Your task to perform on an android device: turn on wifi Image 0: 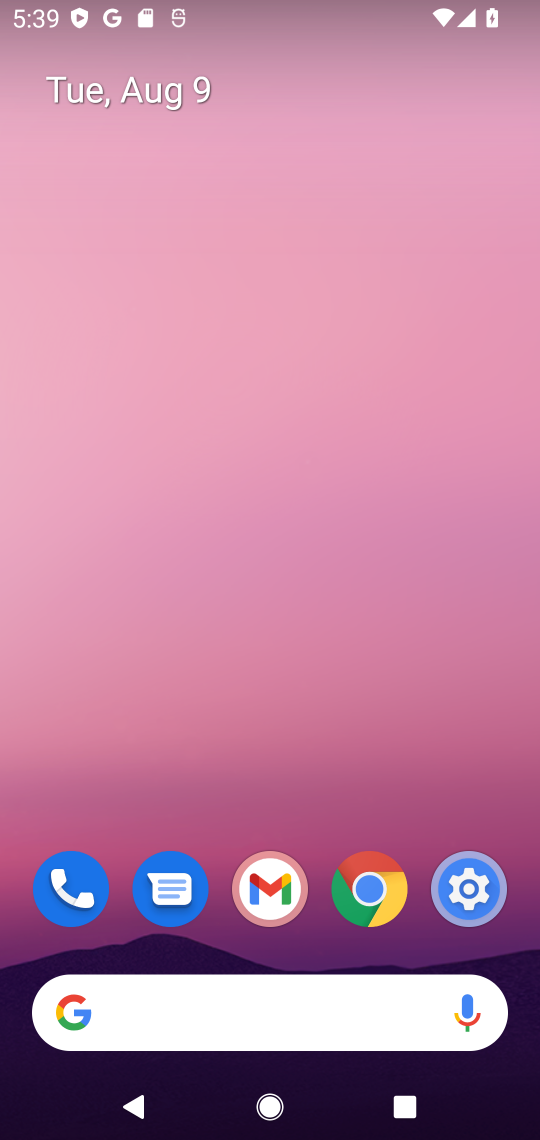
Step 0: click (468, 910)
Your task to perform on an android device: turn on wifi Image 1: 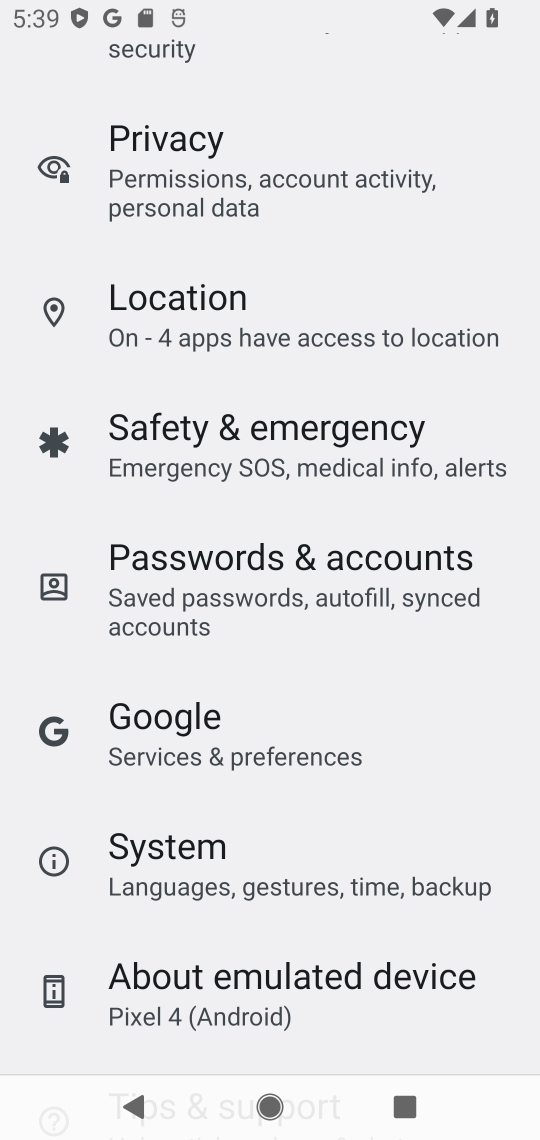
Step 1: drag from (353, 219) to (328, 1127)
Your task to perform on an android device: turn on wifi Image 2: 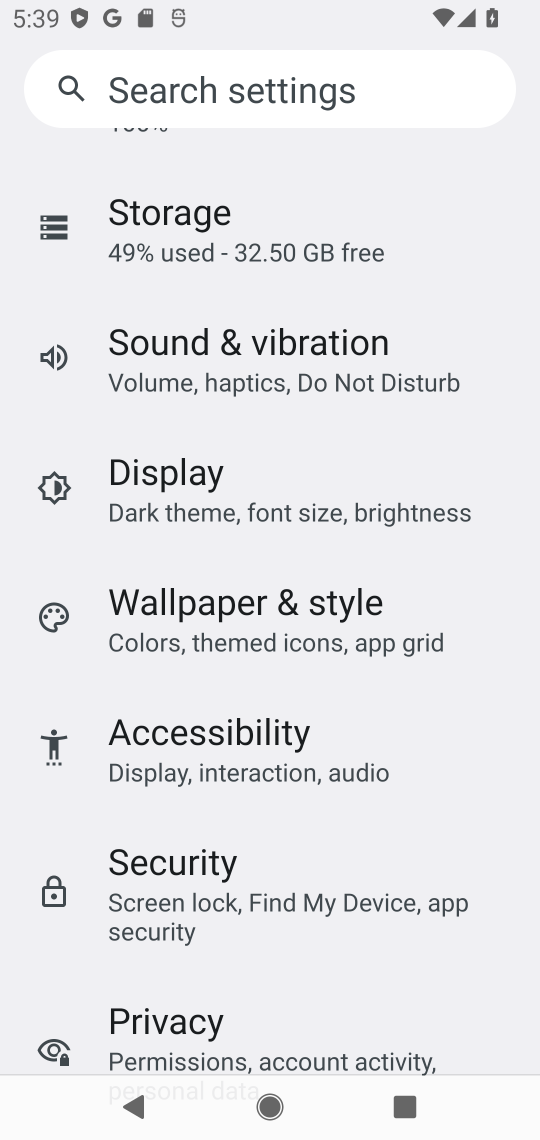
Step 2: drag from (304, 144) to (316, 1045)
Your task to perform on an android device: turn on wifi Image 3: 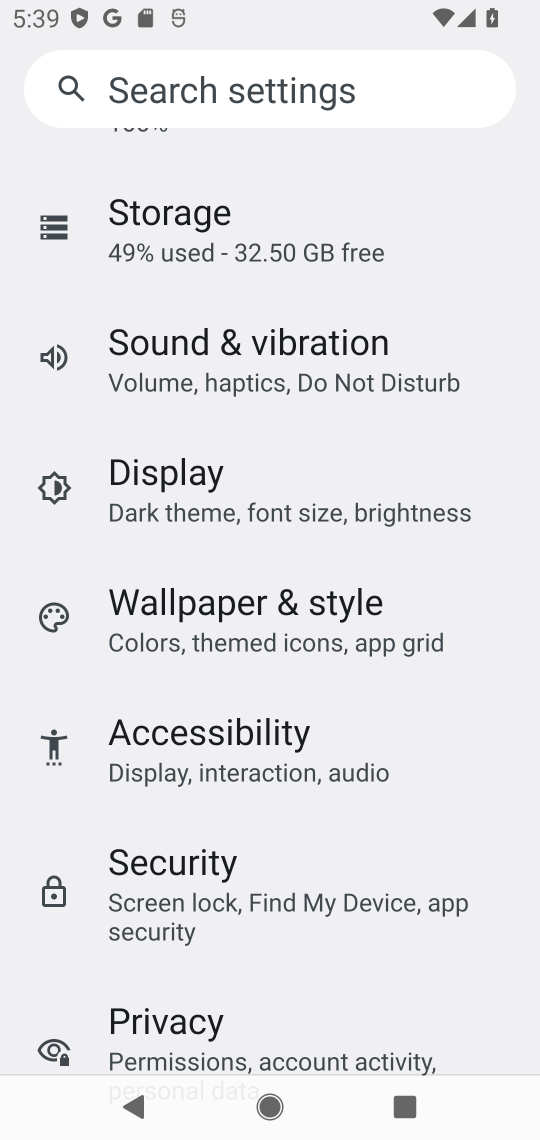
Step 3: drag from (324, 214) to (298, 1059)
Your task to perform on an android device: turn on wifi Image 4: 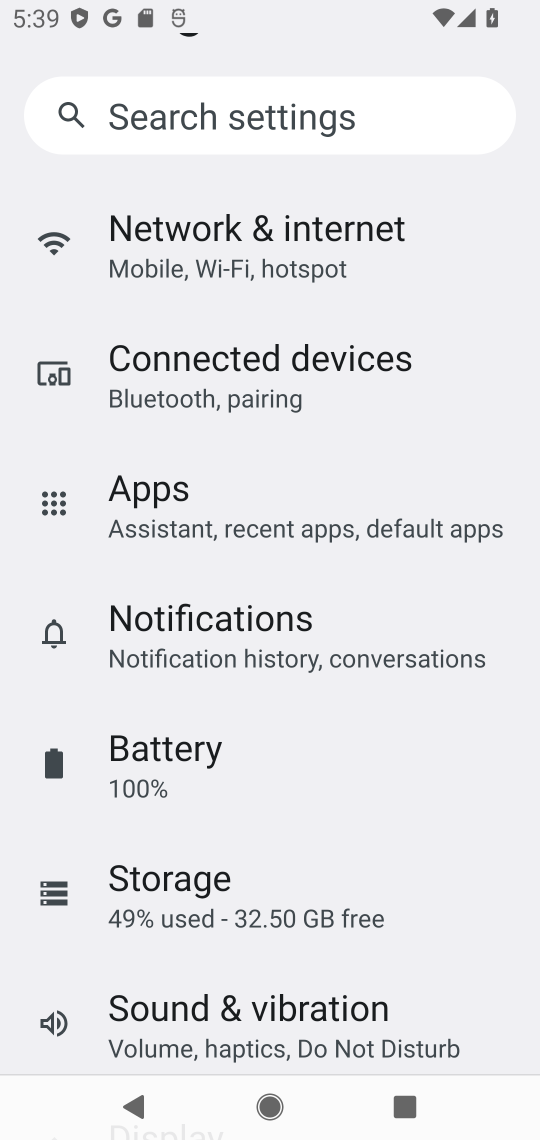
Step 4: drag from (247, 284) to (215, 999)
Your task to perform on an android device: turn on wifi Image 5: 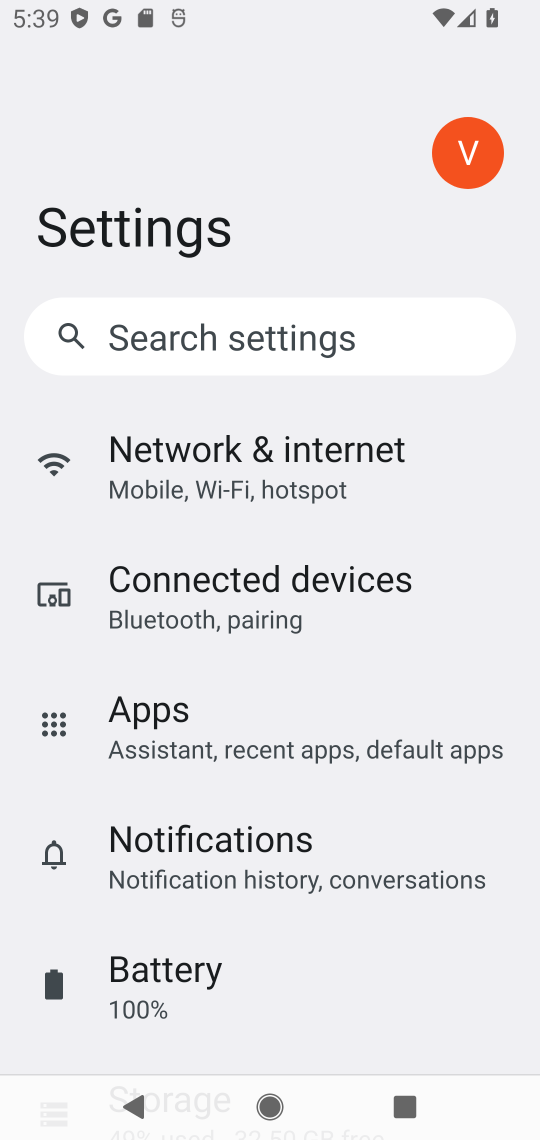
Step 5: click (290, 507)
Your task to perform on an android device: turn on wifi Image 6: 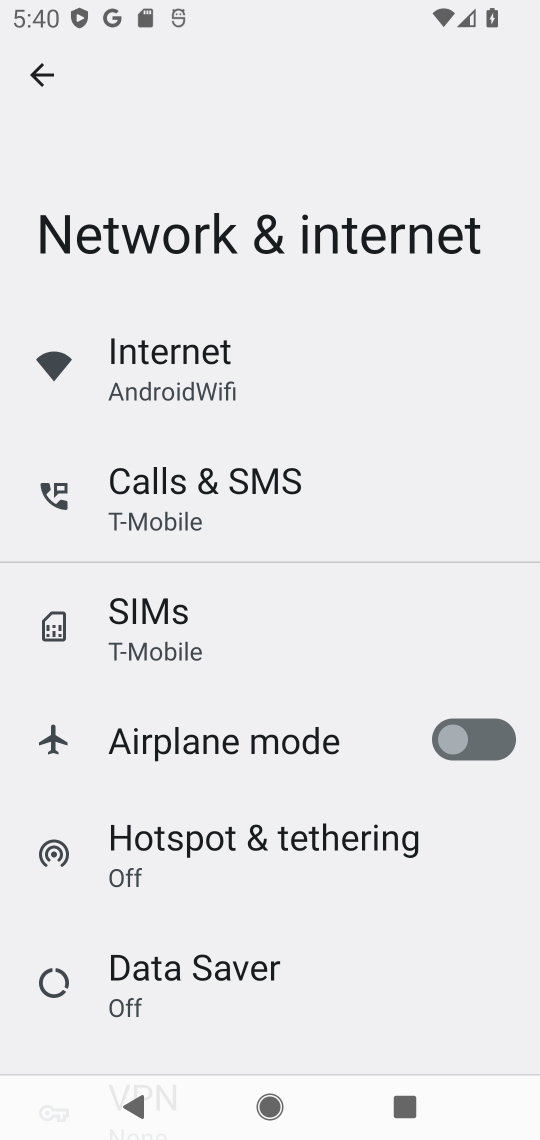
Step 6: click (195, 376)
Your task to perform on an android device: turn on wifi Image 7: 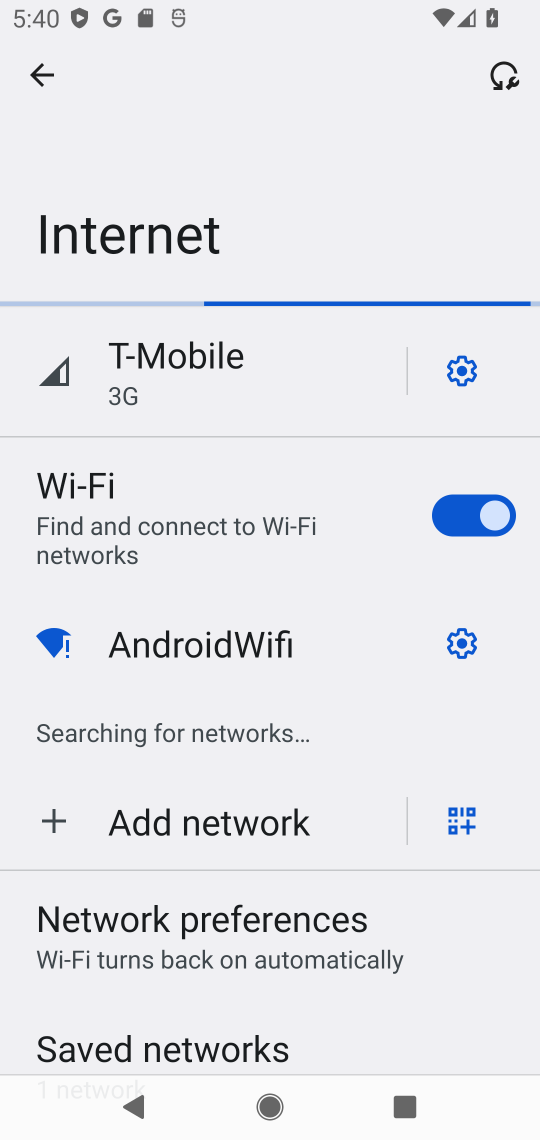
Step 7: task complete